Your task to perform on an android device: see sites visited before in the chrome app Image 0: 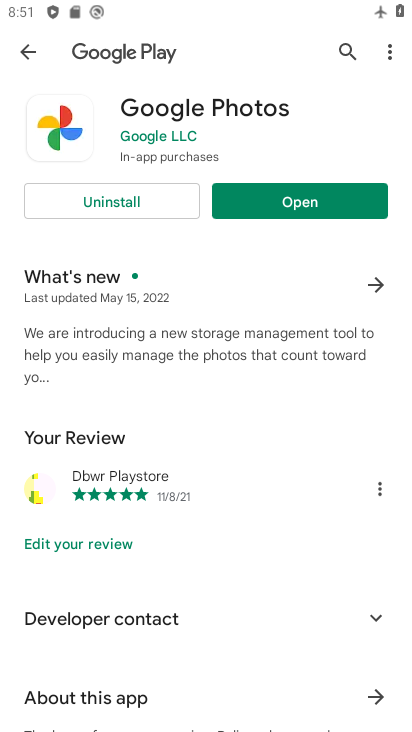
Step 0: press home button
Your task to perform on an android device: see sites visited before in the chrome app Image 1: 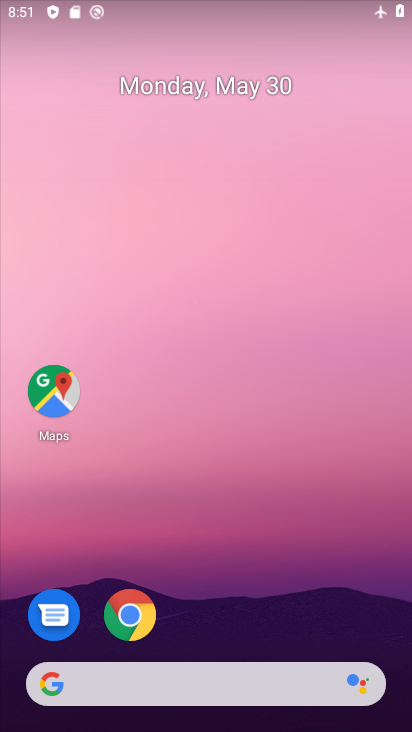
Step 1: click (148, 618)
Your task to perform on an android device: see sites visited before in the chrome app Image 2: 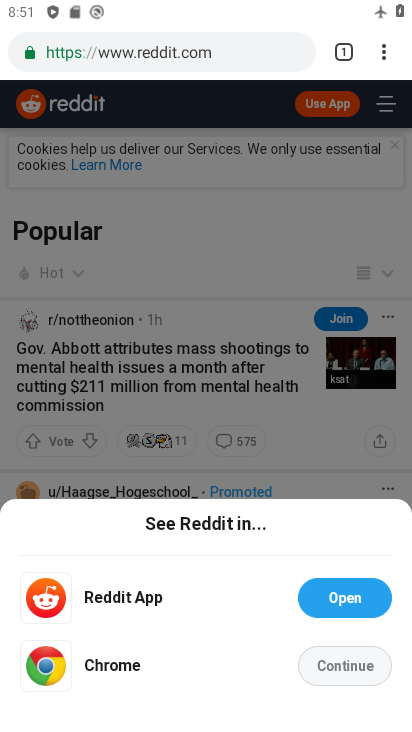
Step 2: click (393, 67)
Your task to perform on an android device: see sites visited before in the chrome app Image 3: 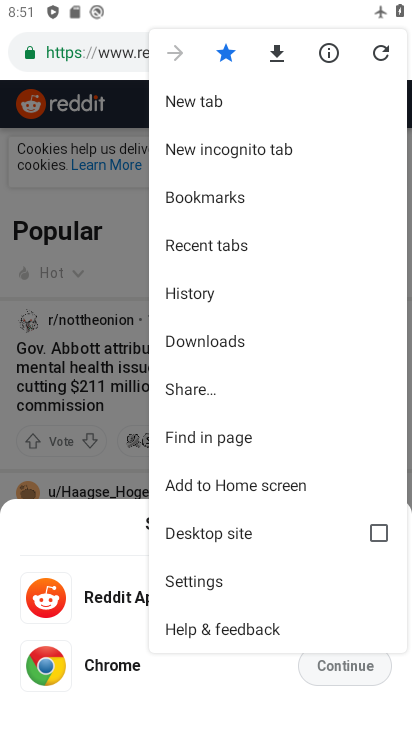
Step 3: click (189, 301)
Your task to perform on an android device: see sites visited before in the chrome app Image 4: 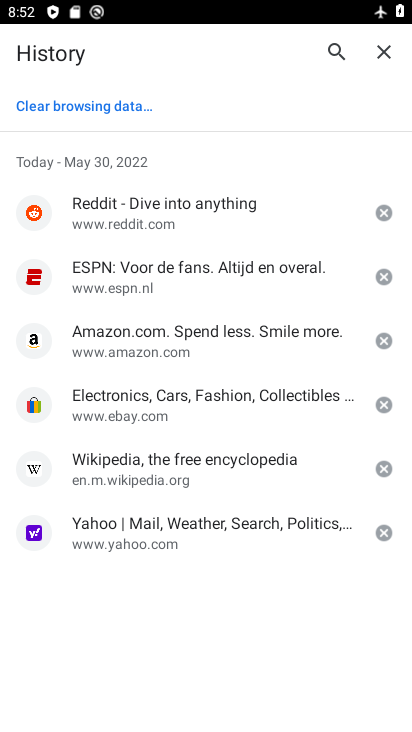
Step 4: task complete